Your task to perform on an android device: Open Chrome and go to the settings page Image 0: 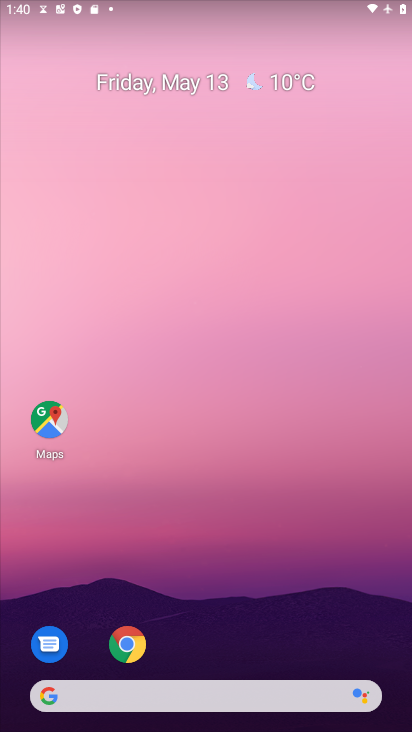
Step 0: click (131, 648)
Your task to perform on an android device: Open Chrome and go to the settings page Image 1: 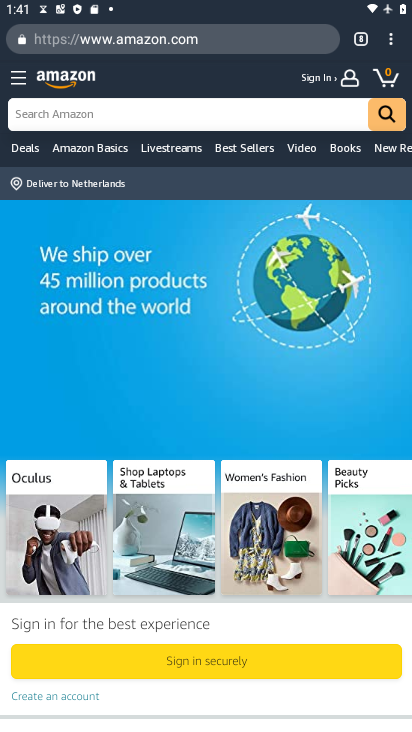
Step 1: click (391, 43)
Your task to perform on an android device: Open Chrome and go to the settings page Image 2: 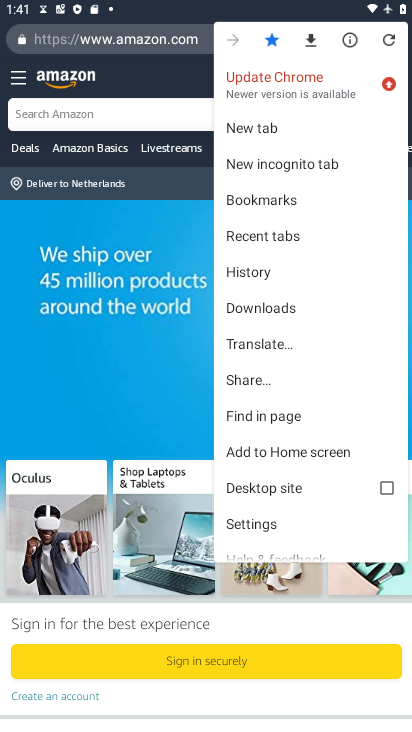
Step 2: click (255, 519)
Your task to perform on an android device: Open Chrome and go to the settings page Image 3: 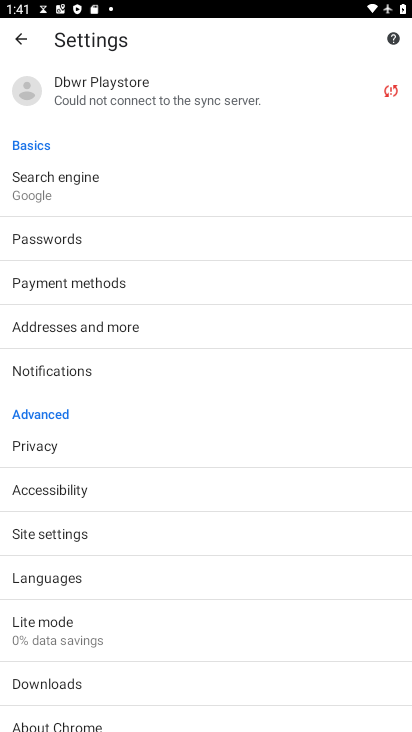
Step 3: task complete